Your task to perform on an android device: check out phone information Image 0: 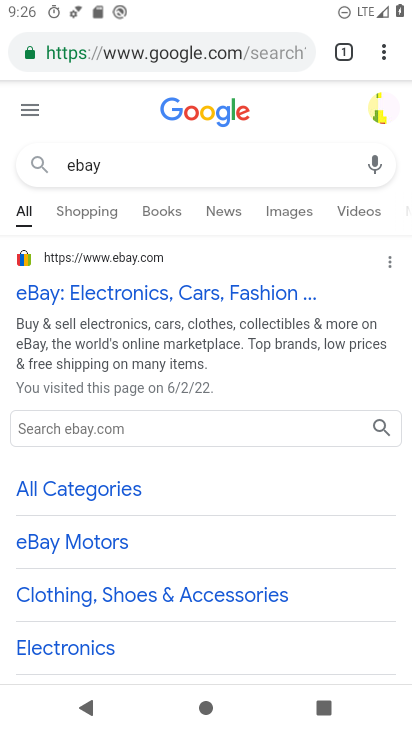
Step 0: press home button
Your task to perform on an android device: check out phone information Image 1: 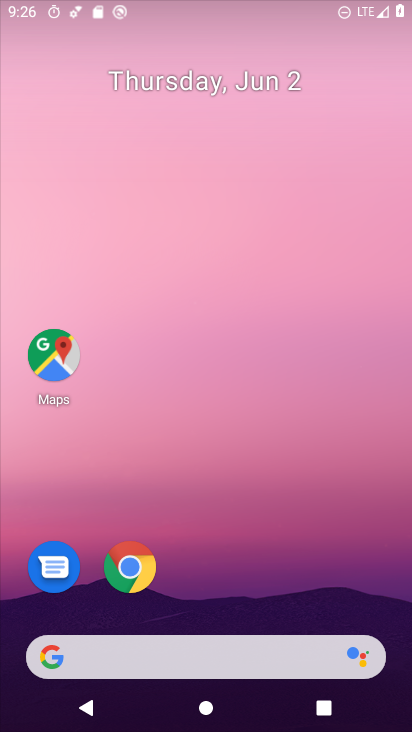
Step 1: drag from (295, 590) to (290, 88)
Your task to perform on an android device: check out phone information Image 2: 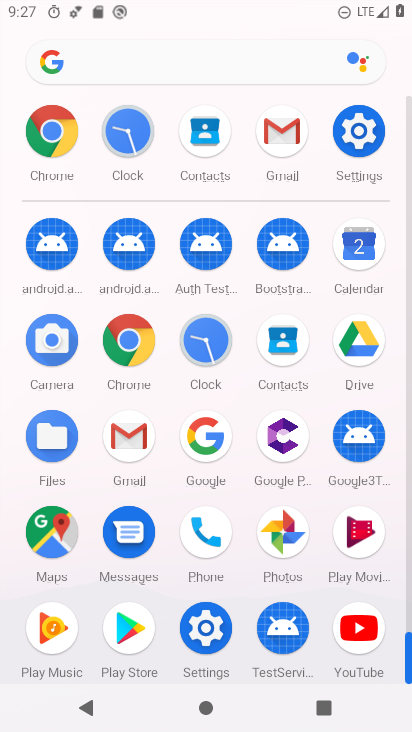
Step 2: click (223, 622)
Your task to perform on an android device: check out phone information Image 3: 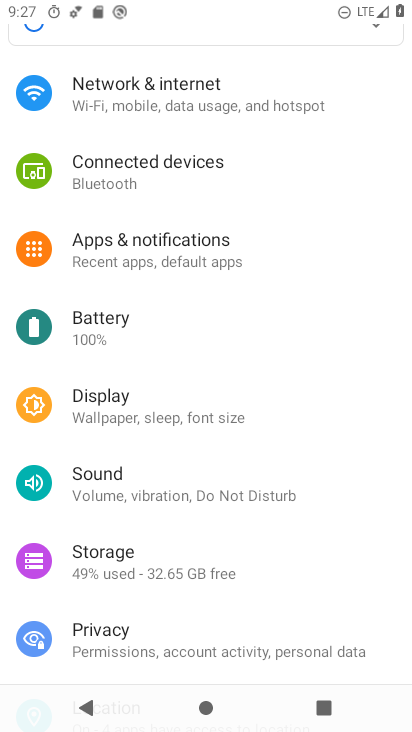
Step 3: drag from (249, 567) to (274, 222)
Your task to perform on an android device: check out phone information Image 4: 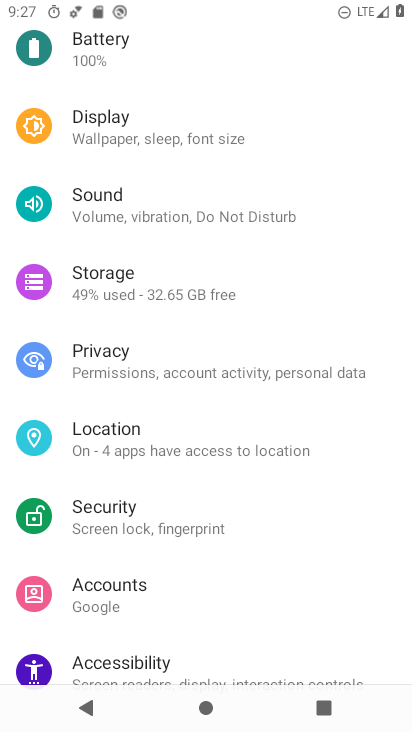
Step 4: drag from (272, 571) to (340, 171)
Your task to perform on an android device: check out phone information Image 5: 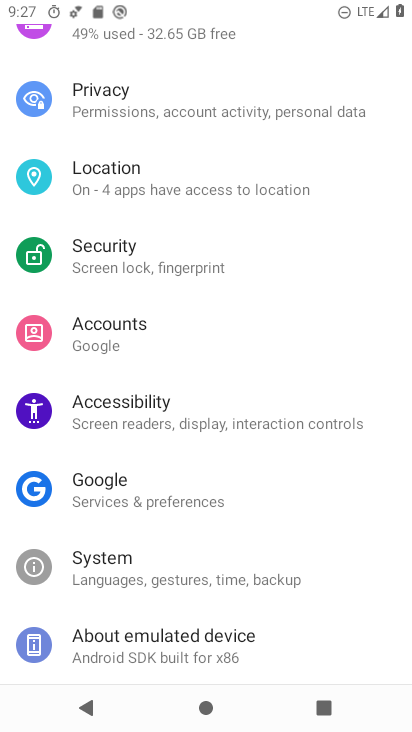
Step 5: click (215, 643)
Your task to perform on an android device: check out phone information Image 6: 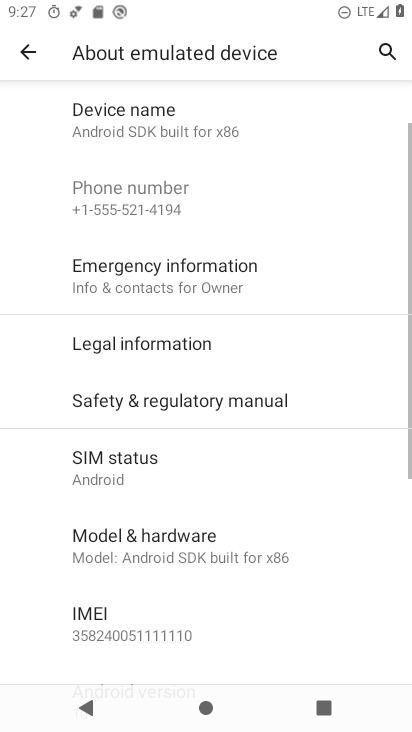
Step 6: task complete